Your task to perform on an android device: change the clock display to analog Image 0: 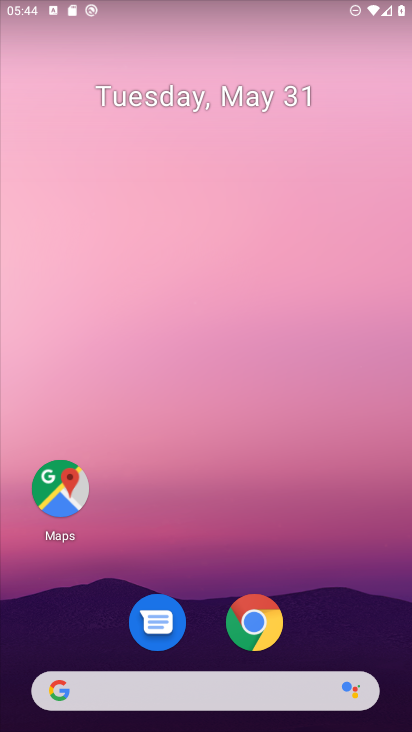
Step 0: drag from (247, 689) to (315, 74)
Your task to perform on an android device: change the clock display to analog Image 1: 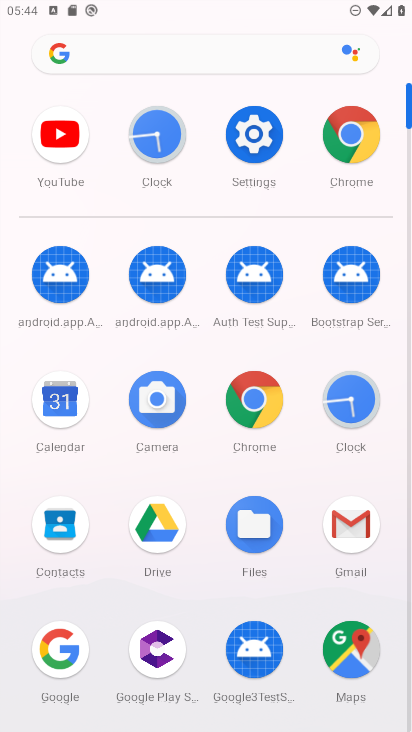
Step 1: click (337, 397)
Your task to perform on an android device: change the clock display to analog Image 2: 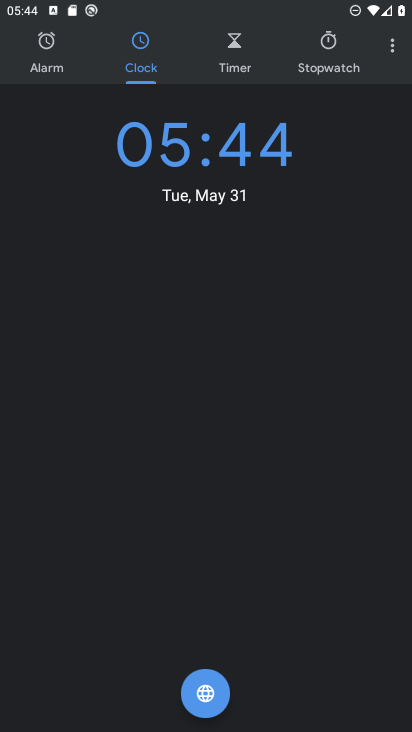
Step 2: drag from (391, 54) to (278, 91)
Your task to perform on an android device: change the clock display to analog Image 3: 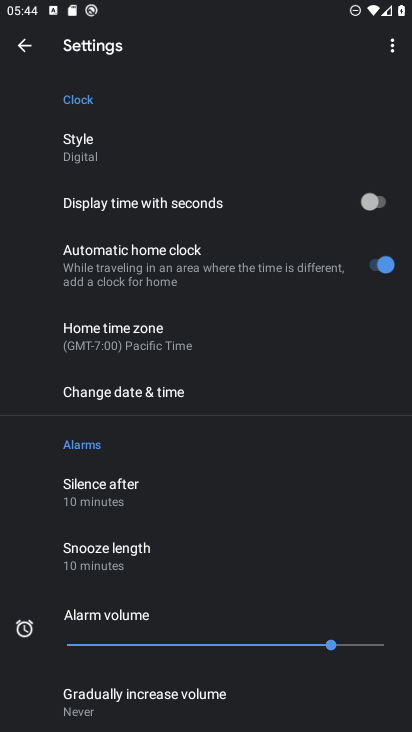
Step 3: click (99, 146)
Your task to perform on an android device: change the clock display to analog Image 4: 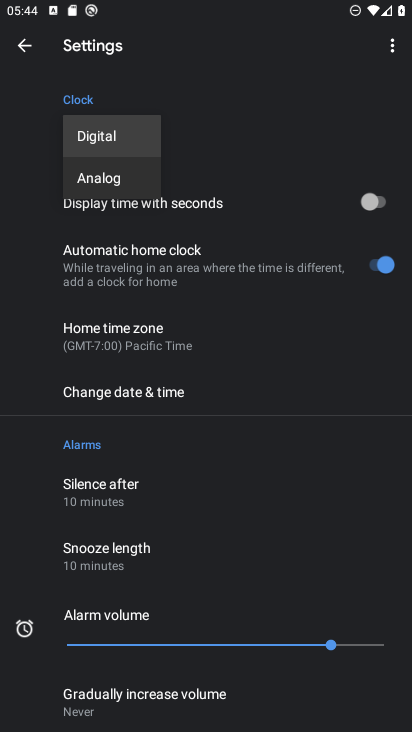
Step 4: click (134, 177)
Your task to perform on an android device: change the clock display to analog Image 5: 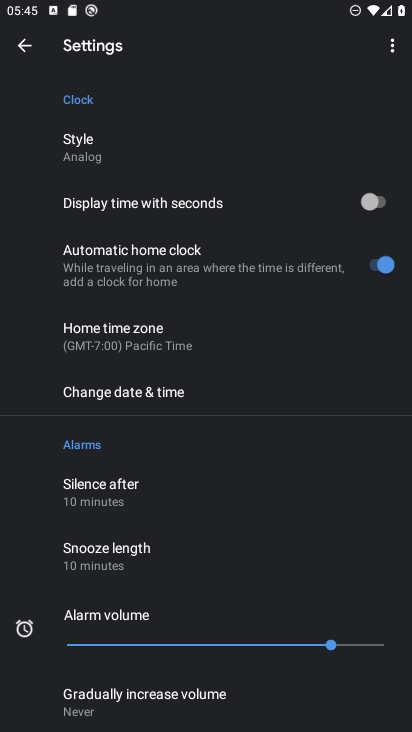
Step 5: task complete